Your task to perform on an android device: open chrome privacy settings Image 0: 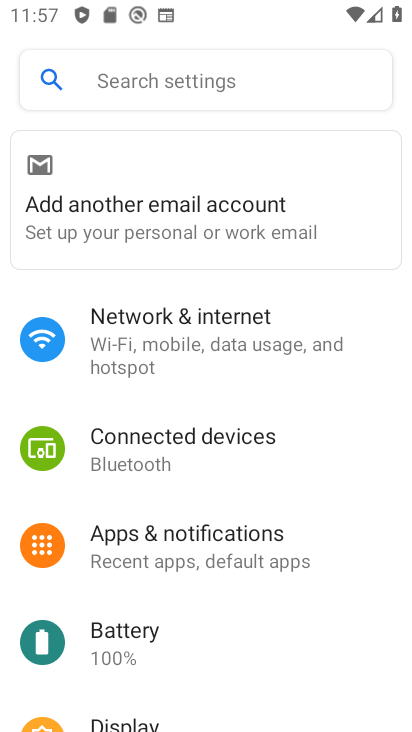
Step 0: press home button
Your task to perform on an android device: open chrome privacy settings Image 1: 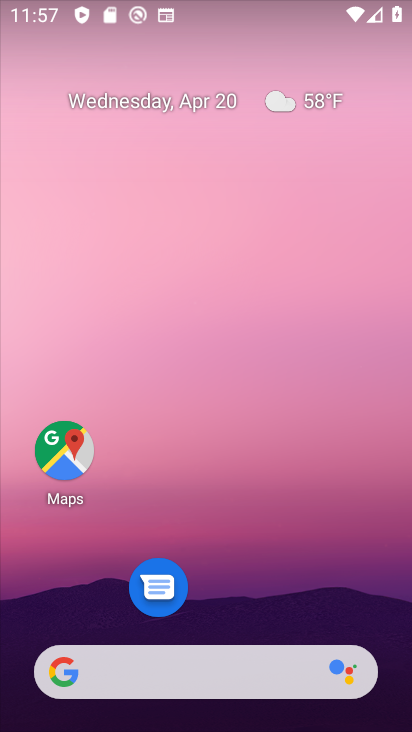
Step 1: drag from (274, 625) to (263, 67)
Your task to perform on an android device: open chrome privacy settings Image 2: 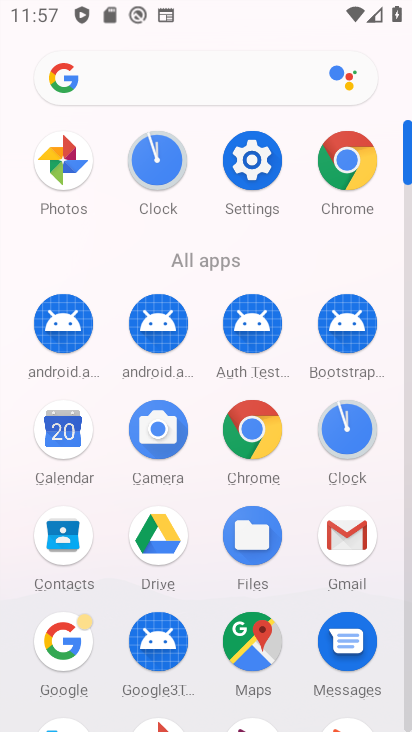
Step 2: drag from (342, 152) to (239, 448)
Your task to perform on an android device: open chrome privacy settings Image 3: 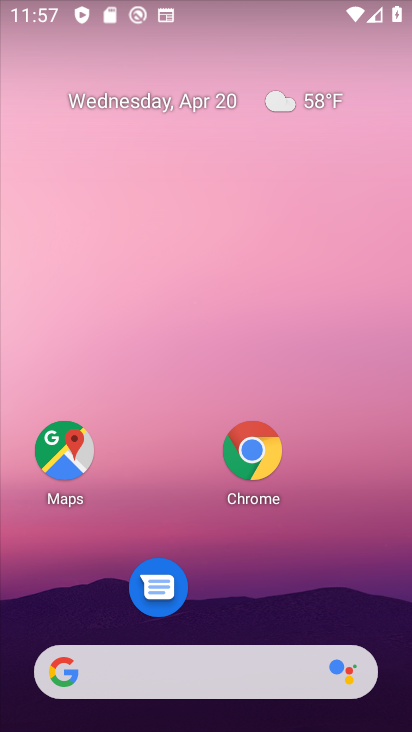
Step 3: click (239, 448)
Your task to perform on an android device: open chrome privacy settings Image 4: 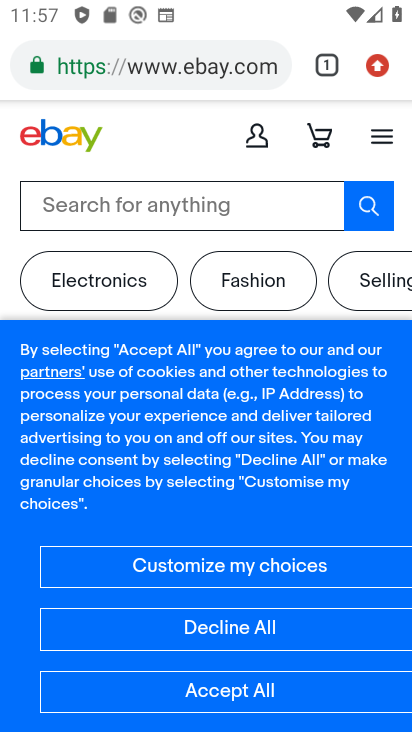
Step 4: click (373, 66)
Your task to perform on an android device: open chrome privacy settings Image 5: 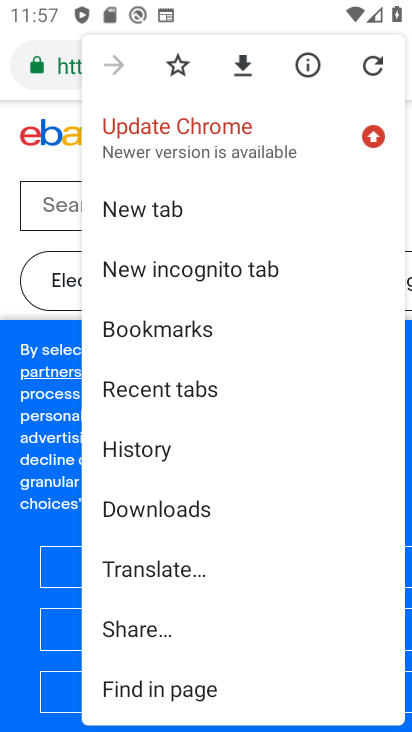
Step 5: drag from (251, 641) to (232, 103)
Your task to perform on an android device: open chrome privacy settings Image 6: 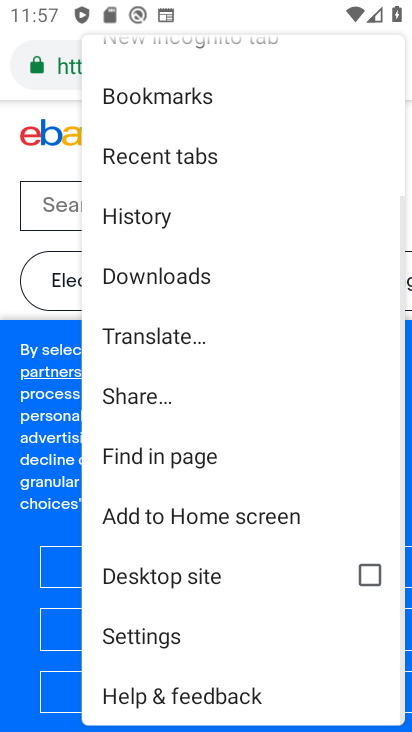
Step 6: drag from (124, 647) to (174, 219)
Your task to perform on an android device: open chrome privacy settings Image 7: 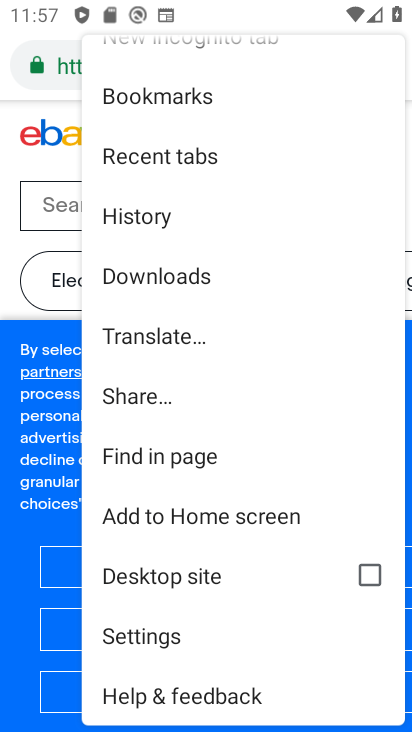
Step 7: click (136, 648)
Your task to perform on an android device: open chrome privacy settings Image 8: 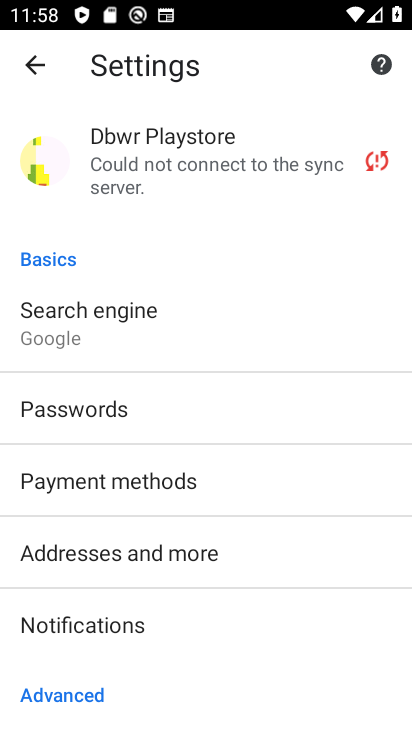
Step 8: drag from (136, 648) to (202, 391)
Your task to perform on an android device: open chrome privacy settings Image 9: 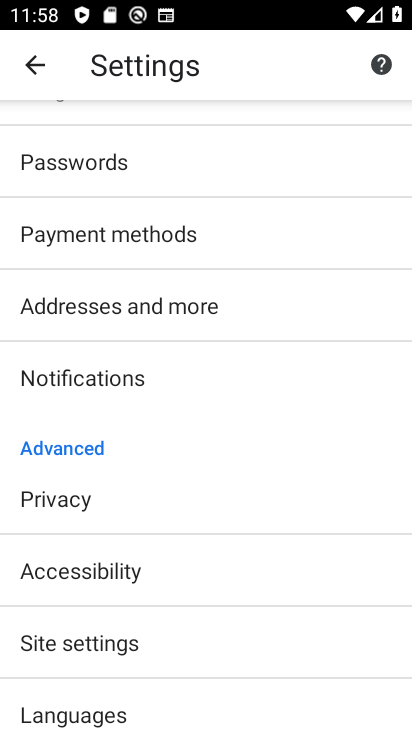
Step 9: click (82, 501)
Your task to perform on an android device: open chrome privacy settings Image 10: 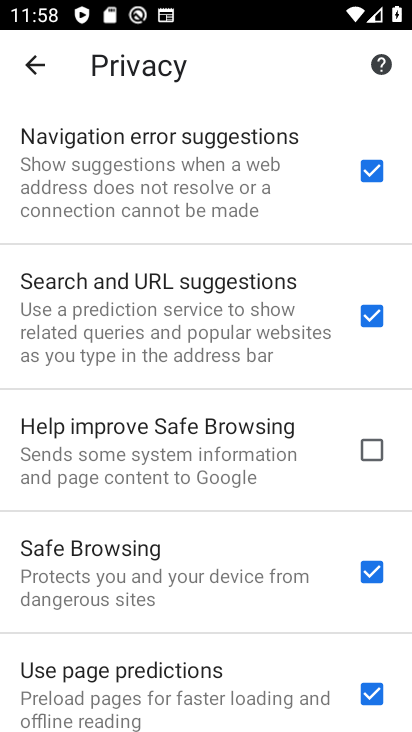
Step 10: task complete